Your task to perform on an android device: Open Amazon Image 0: 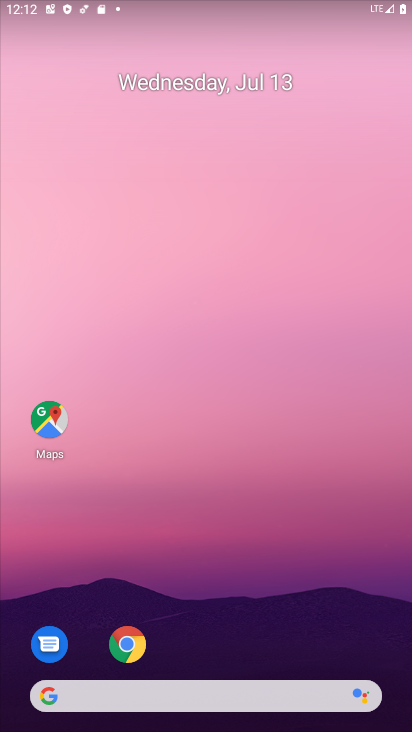
Step 0: click (126, 644)
Your task to perform on an android device: Open Amazon Image 1: 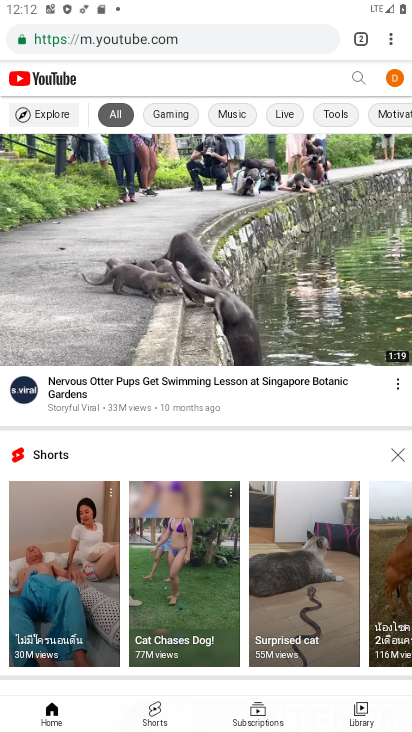
Step 1: press home button
Your task to perform on an android device: Open Amazon Image 2: 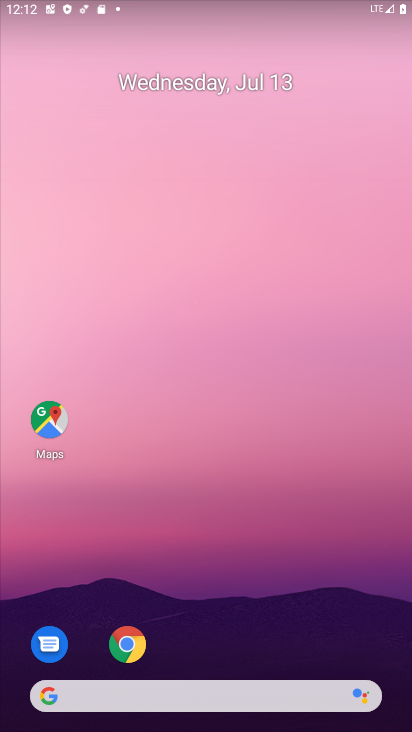
Step 2: click (123, 645)
Your task to perform on an android device: Open Amazon Image 3: 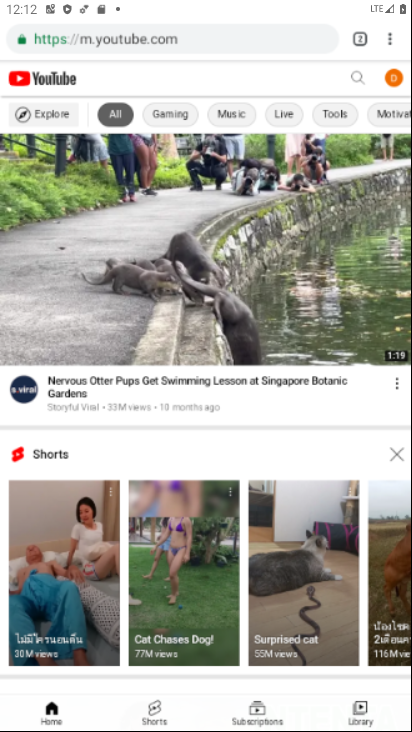
Step 3: press back button
Your task to perform on an android device: Open Amazon Image 4: 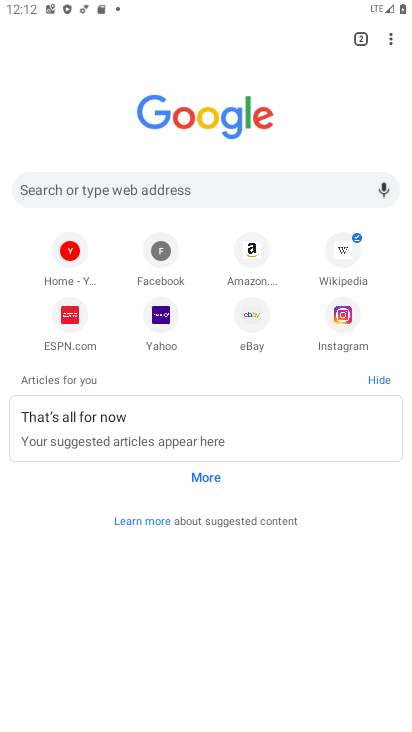
Step 4: click (251, 250)
Your task to perform on an android device: Open Amazon Image 5: 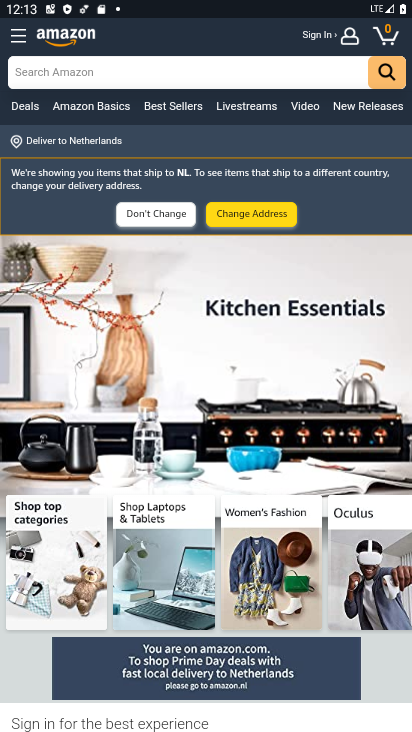
Step 5: task complete